Your task to perform on an android device: turn off notifications settings in the gmail app Image 0: 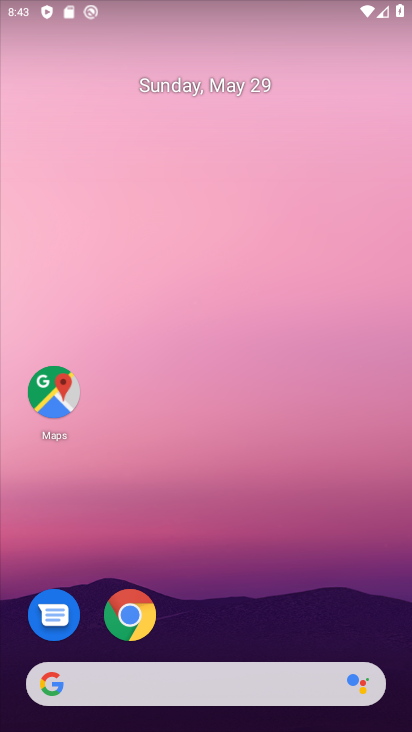
Step 0: drag from (211, 534) to (243, 333)
Your task to perform on an android device: turn off notifications settings in the gmail app Image 1: 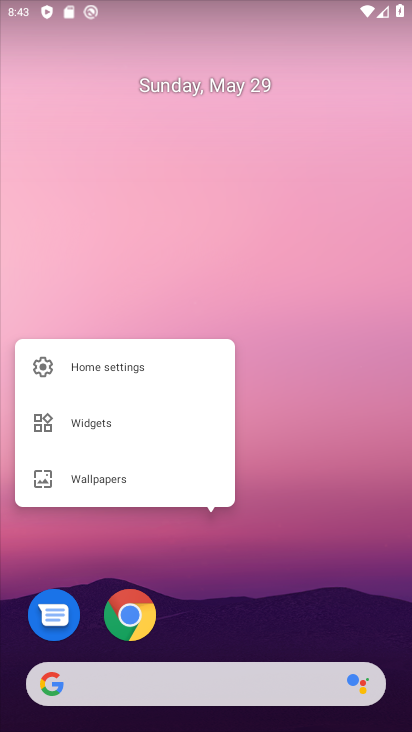
Step 1: drag from (242, 701) to (352, 165)
Your task to perform on an android device: turn off notifications settings in the gmail app Image 2: 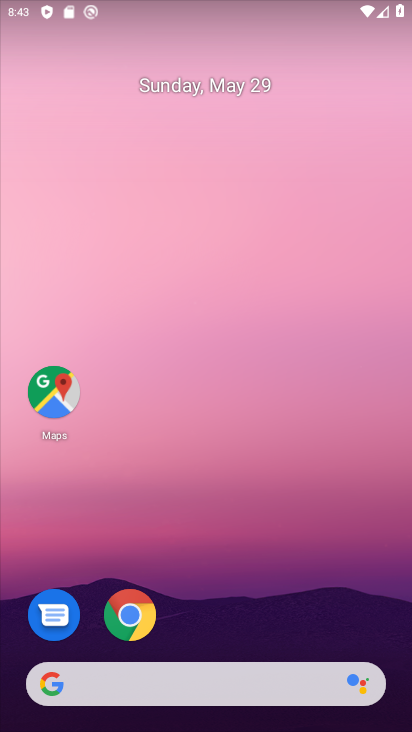
Step 2: drag from (206, 661) to (288, 122)
Your task to perform on an android device: turn off notifications settings in the gmail app Image 3: 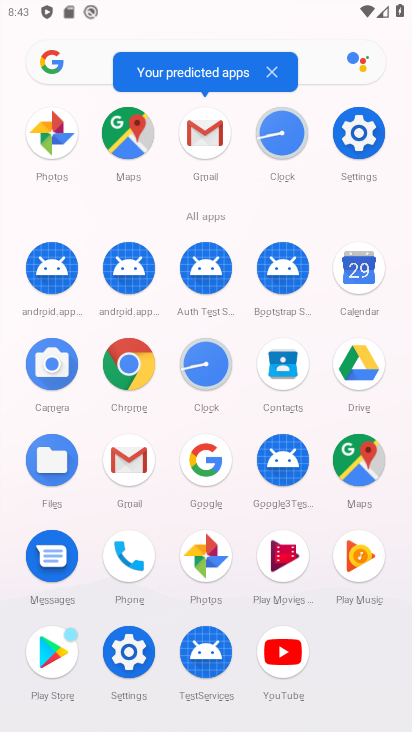
Step 3: click (128, 473)
Your task to perform on an android device: turn off notifications settings in the gmail app Image 4: 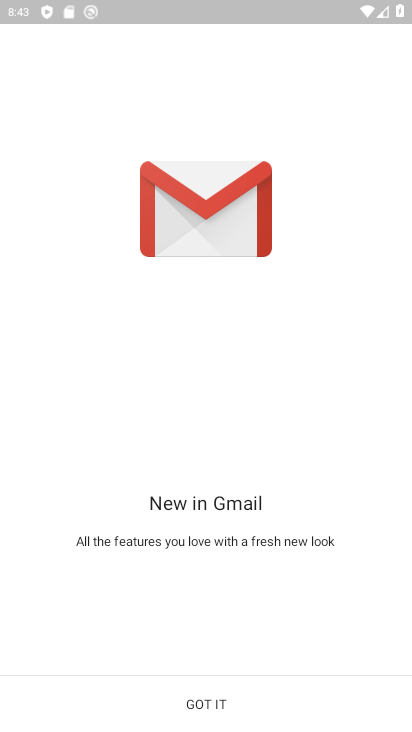
Step 4: click (303, 721)
Your task to perform on an android device: turn off notifications settings in the gmail app Image 5: 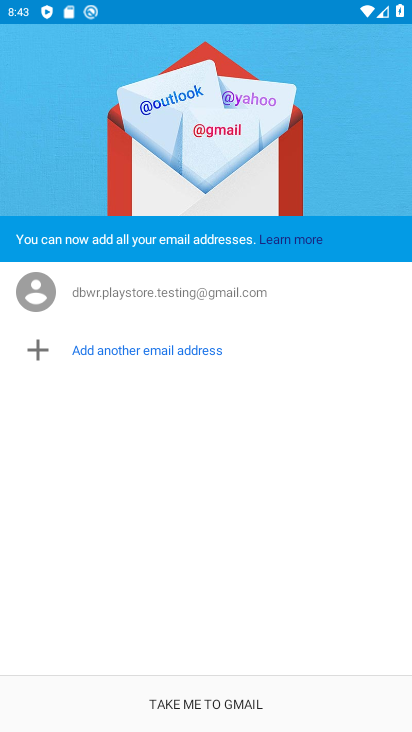
Step 5: click (232, 696)
Your task to perform on an android device: turn off notifications settings in the gmail app Image 6: 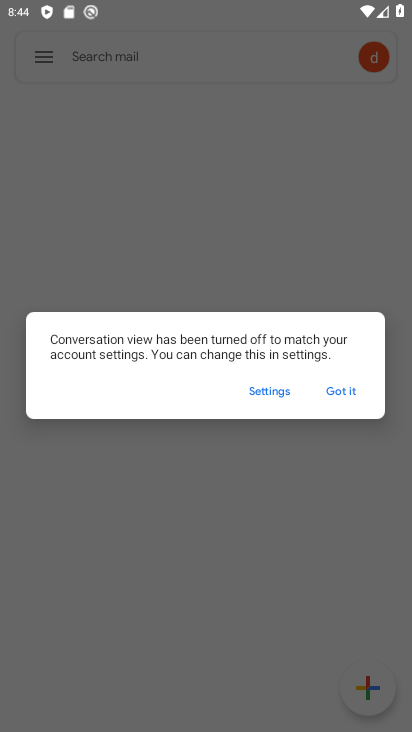
Step 6: click (351, 398)
Your task to perform on an android device: turn off notifications settings in the gmail app Image 7: 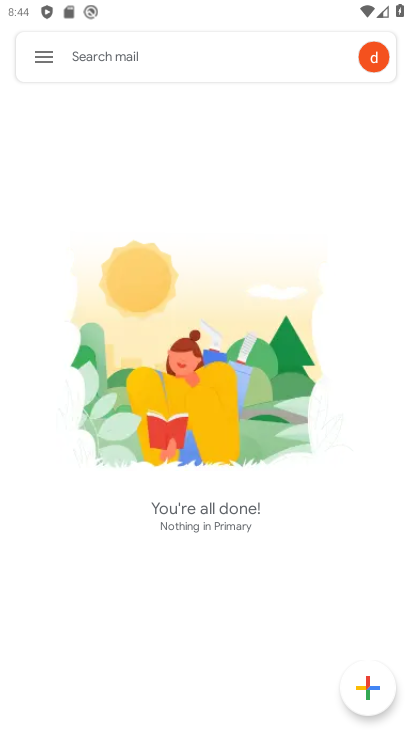
Step 7: click (64, 66)
Your task to perform on an android device: turn off notifications settings in the gmail app Image 8: 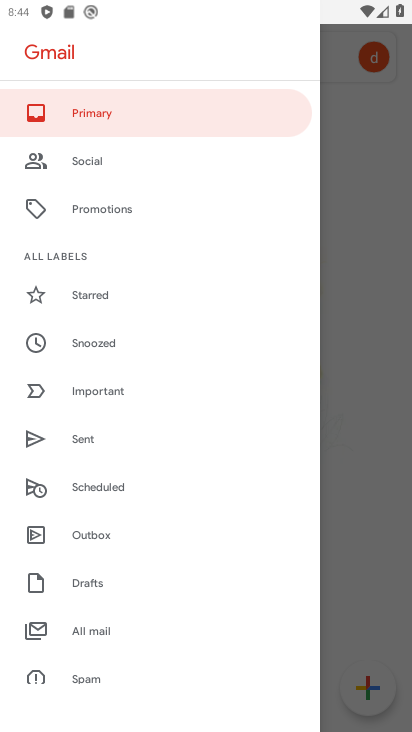
Step 8: drag from (101, 611) to (216, 138)
Your task to perform on an android device: turn off notifications settings in the gmail app Image 9: 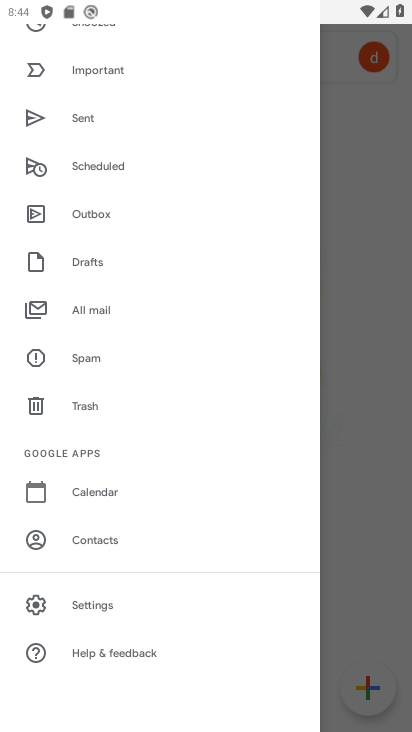
Step 9: click (156, 605)
Your task to perform on an android device: turn off notifications settings in the gmail app Image 10: 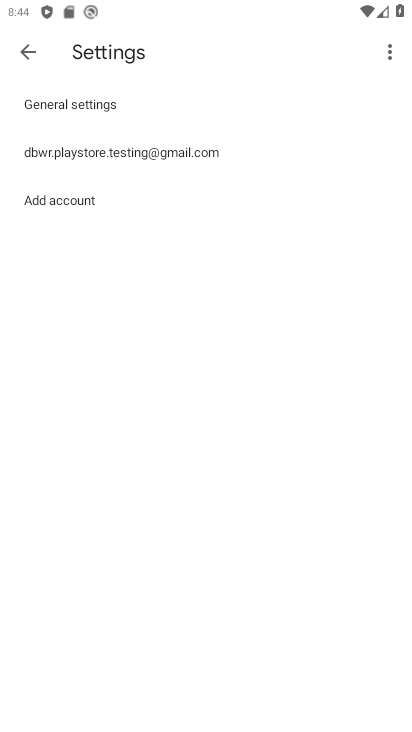
Step 10: click (239, 158)
Your task to perform on an android device: turn off notifications settings in the gmail app Image 11: 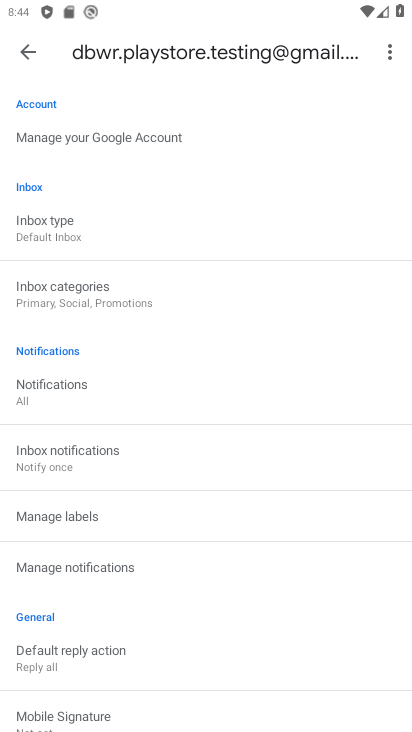
Step 11: click (126, 571)
Your task to perform on an android device: turn off notifications settings in the gmail app Image 12: 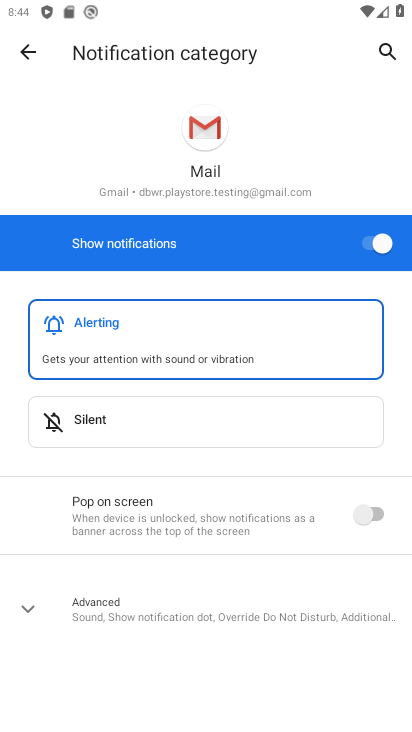
Step 12: click (354, 235)
Your task to perform on an android device: turn off notifications settings in the gmail app Image 13: 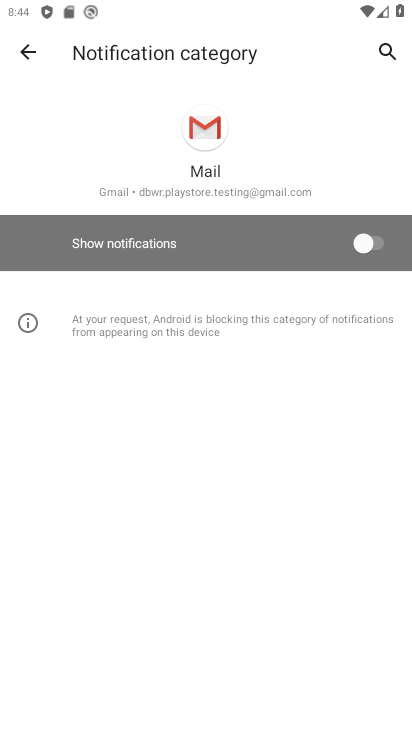
Step 13: task complete